Your task to perform on an android device: Open Chrome and go to settings Image 0: 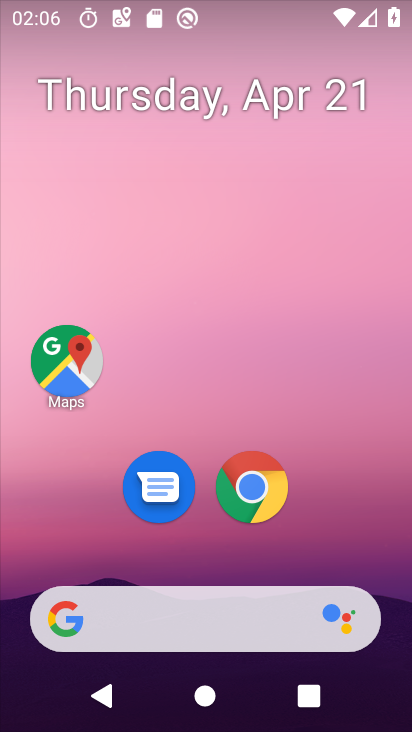
Step 0: click (243, 169)
Your task to perform on an android device: Open Chrome and go to settings Image 1: 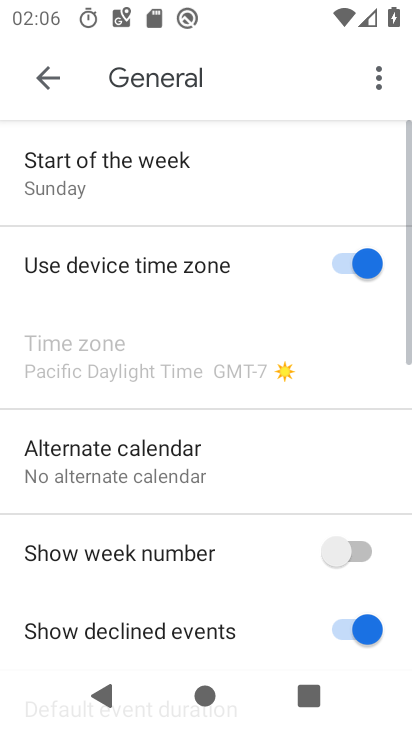
Step 1: drag from (215, 455) to (222, 249)
Your task to perform on an android device: Open Chrome and go to settings Image 2: 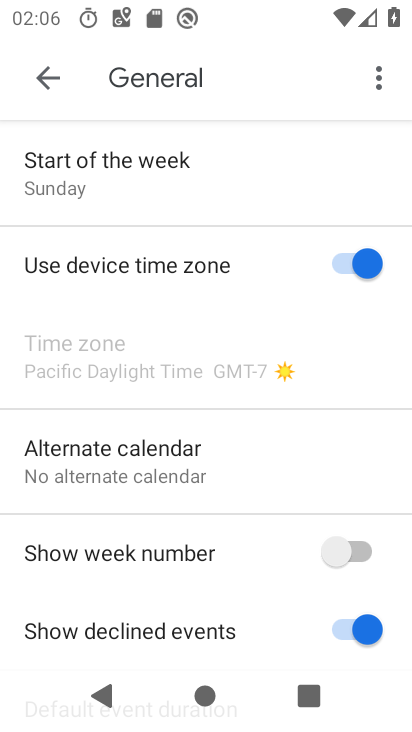
Step 2: press home button
Your task to perform on an android device: Open Chrome and go to settings Image 3: 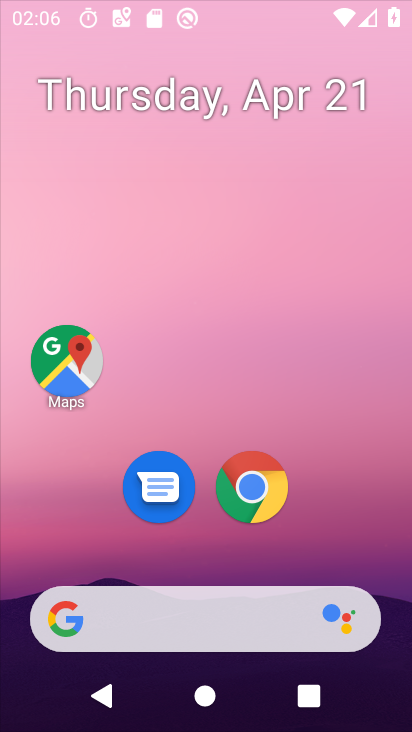
Step 3: drag from (193, 449) to (236, 172)
Your task to perform on an android device: Open Chrome and go to settings Image 4: 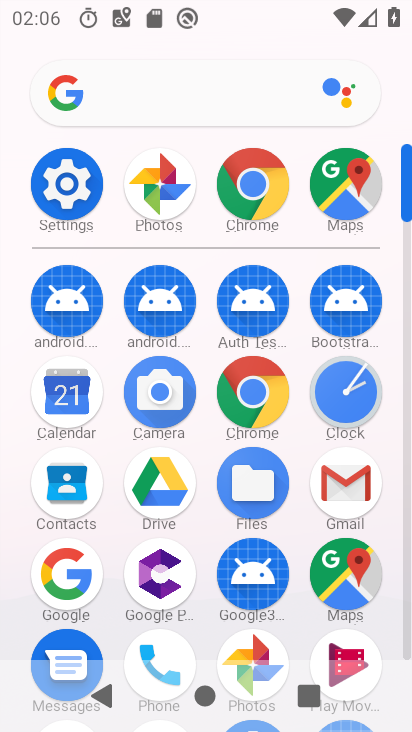
Step 4: click (259, 376)
Your task to perform on an android device: Open Chrome and go to settings Image 5: 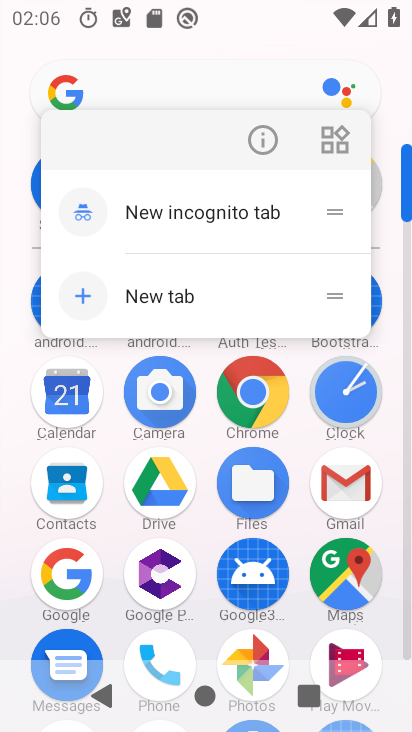
Step 5: click (245, 129)
Your task to perform on an android device: Open Chrome and go to settings Image 6: 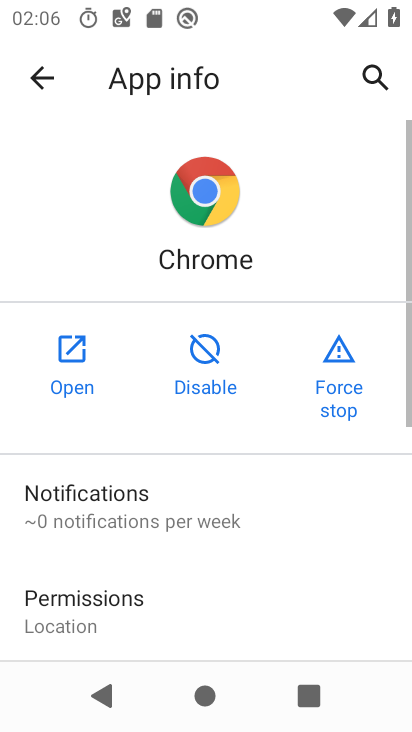
Step 6: click (71, 337)
Your task to perform on an android device: Open Chrome and go to settings Image 7: 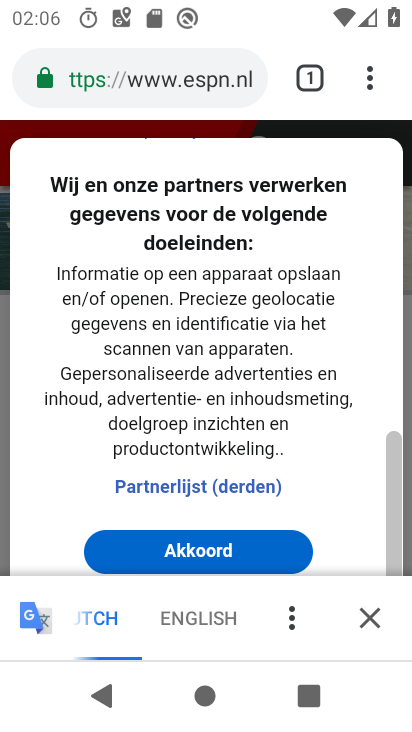
Step 7: click (257, 552)
Your task to perform on an android device: Open Chrome and go to settings Image 8: 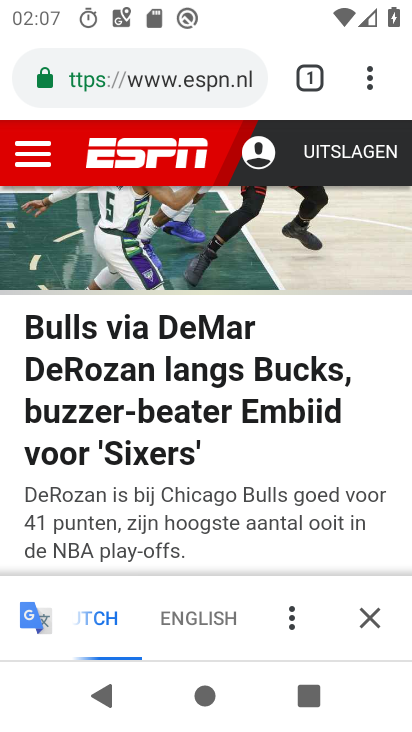
Step 8: drag from (374, 72) to (139, 554)
Your task to perform on an android device: Open Chrome and go to settings Image 9: 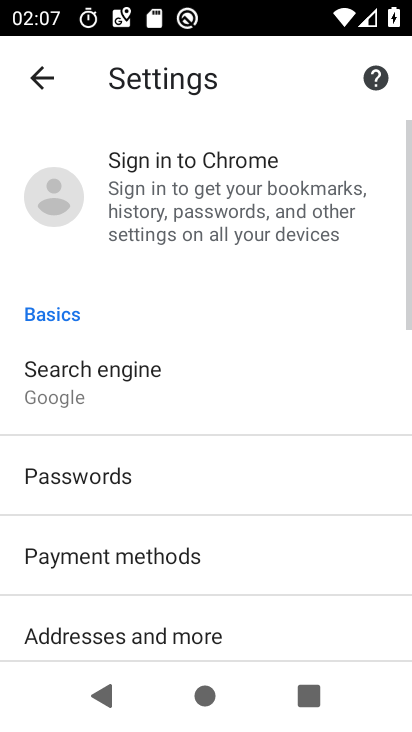
Step 9: drag from (207, 515) to (288, 31)
Your task to perform on an android device: Open Chrome and go to settings Image 10: 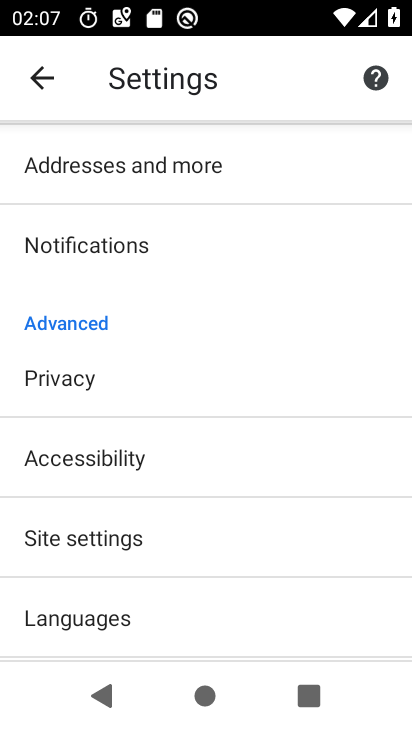
Step 10: click (145, 548)
Your task to perform on an android device: Open Chrome and go to settings Image 11: 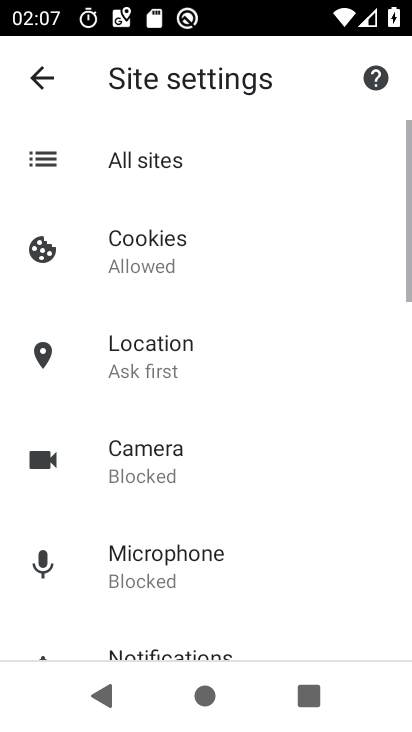
Step 11: task complete